Your task to perform on an android device: turn off smart reply in the gmail app Image 0: 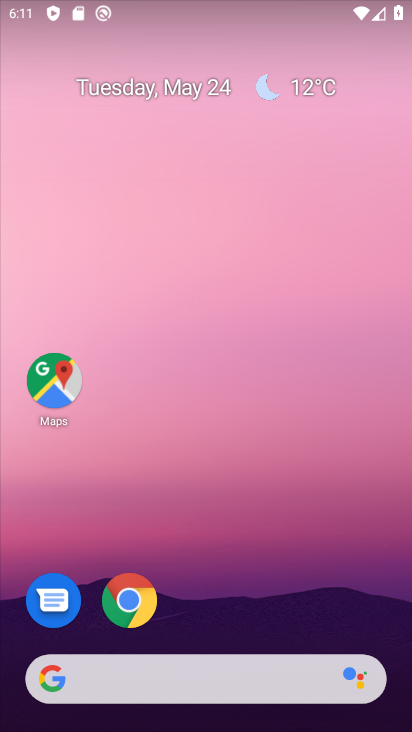
Step 0: drag from (299, 685) to (290, 161)
Your task to perform on an android device: turn off smart reply in the gmail app Image 1: 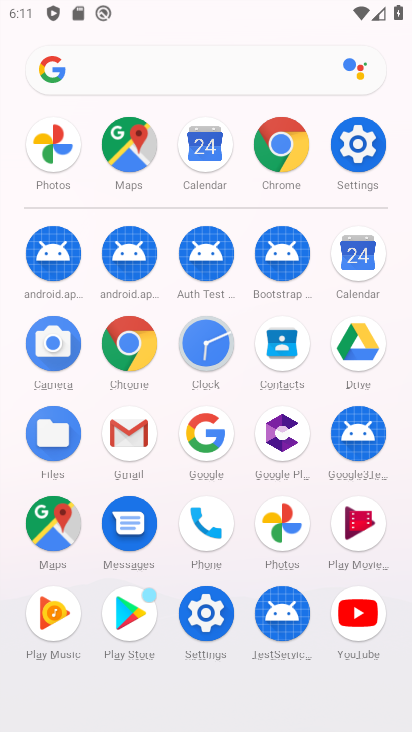
Step 1: click (105, 443)
Your task to perform on an android device: turn off smart reply in the gmail app Image 2: 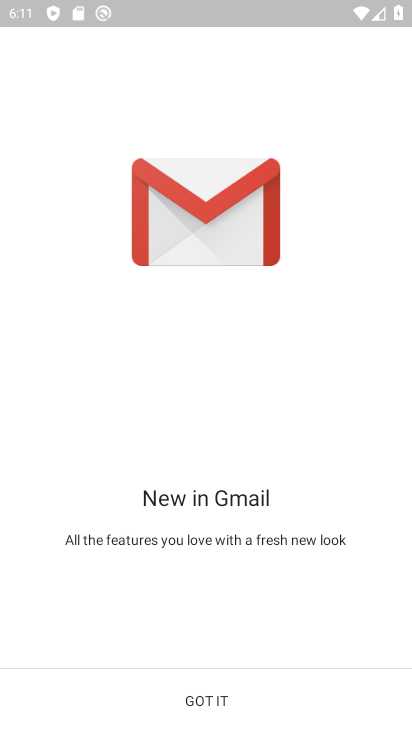
Step 2: click (249, 707)
Your task to perform on an android device: turn off smart reply in the gmail app Image 3: 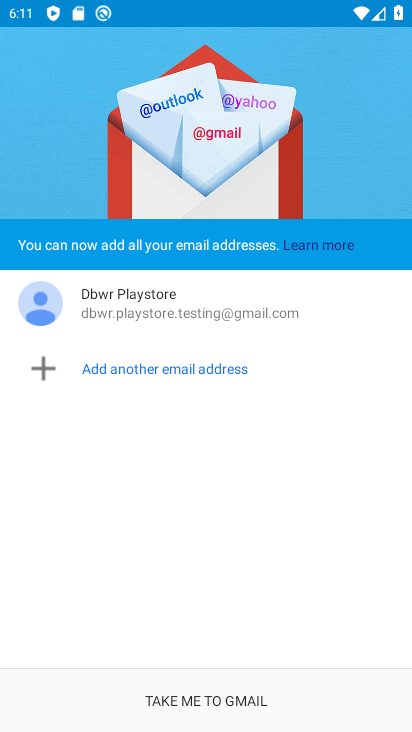
Step 3: click (249, 707)
Your task to perform on an android device: turn off smart reply in the gmail app Image 4: 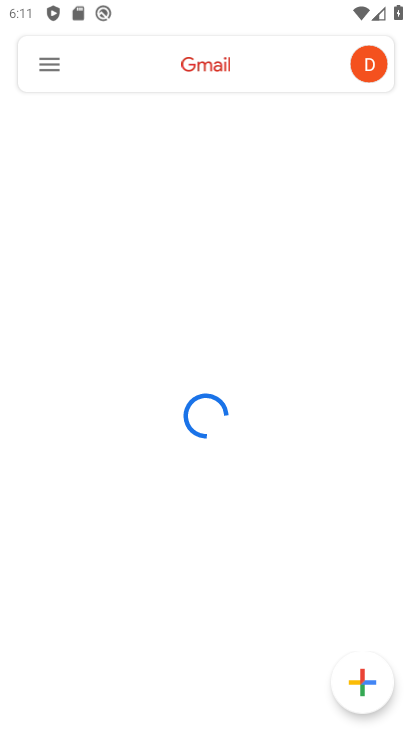
Step 4: click (51, 67)
Your task to perform on an android device: turn off smart reply in the gmail app Image 5: 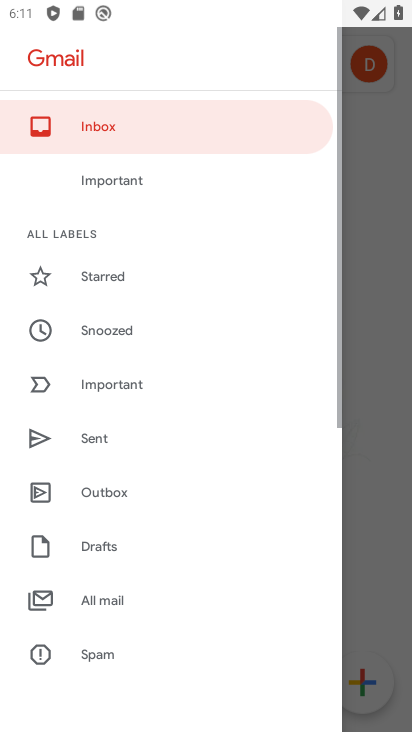
Step 5: click (113, 291)
Your task to perform on an android device: turn off smart reply in the gmail app Image 6: 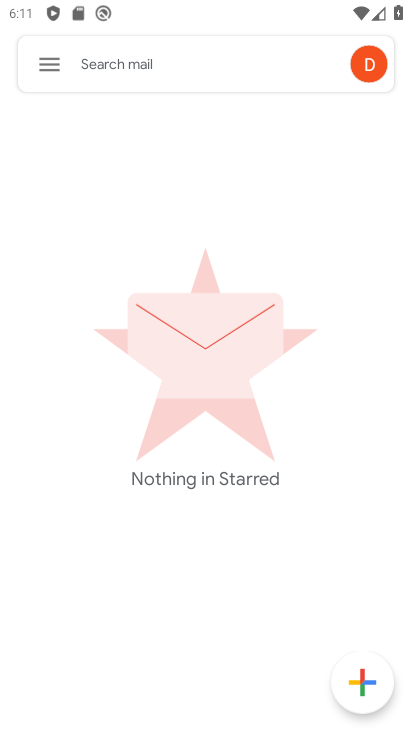
Step 6: press back button
Your task to perform on an android device: turn off smart reply in the gmail app Image 7: 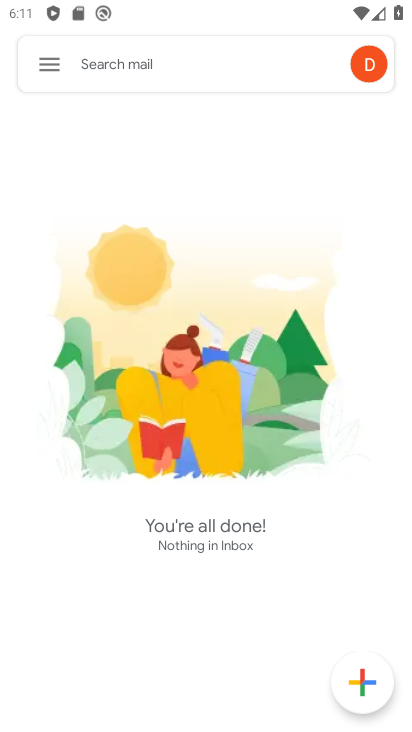
Step 7: click (54, 67)
Your task to perform on an android device: turn off smart reply in the gmail app Image 8: 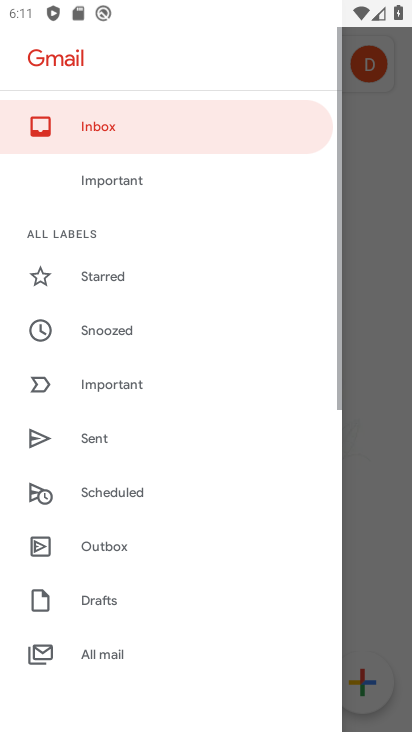
Step 8: drag from (125, 658) to (211, 192)
Your task to perform on an android device: turn off smart reply in the gmail app Image 9: 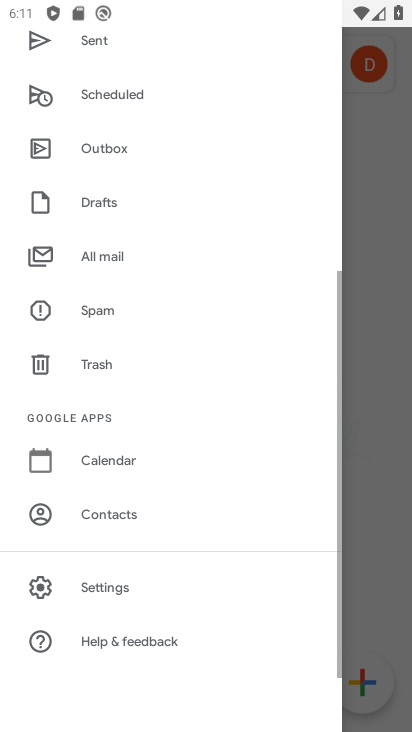
Step 9: click (104, 583)
Your task to perform on an android device: turn off smart reply in the gmail app Image 10: 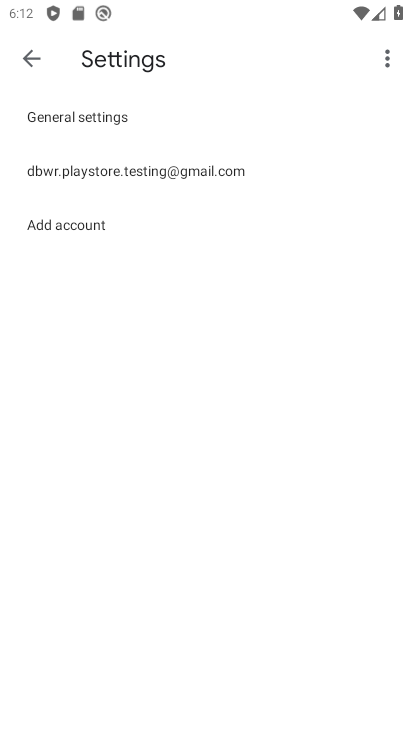
Step 10: click (230, 172)
Your task to perform on an android device: turn off smart reply in the gmail app Image 11: 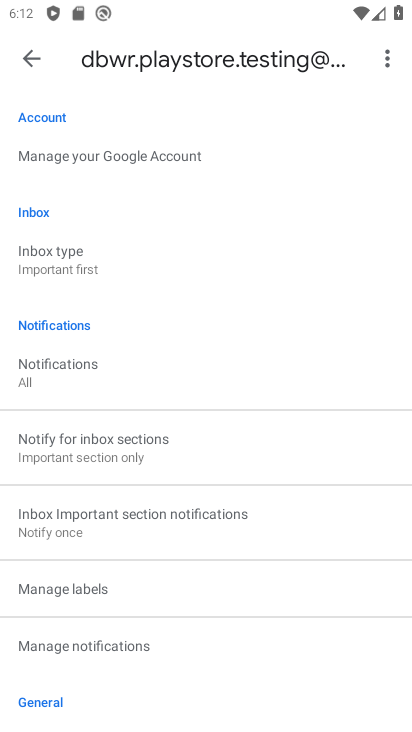
Step 11: drag from (71, 713) to (171, 55)
Your task to perform on an android device: turn off smart reply in the gmail app Image 12: 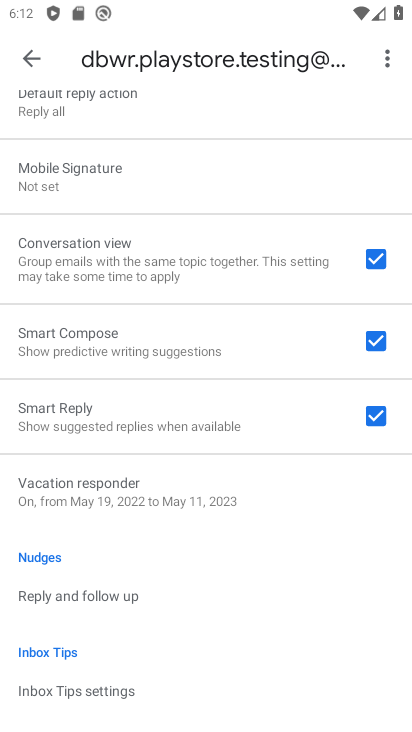
Step 12: click (387, 415)
Your task to perform on an android device: turn off smart reply in the gmail app Image 13: 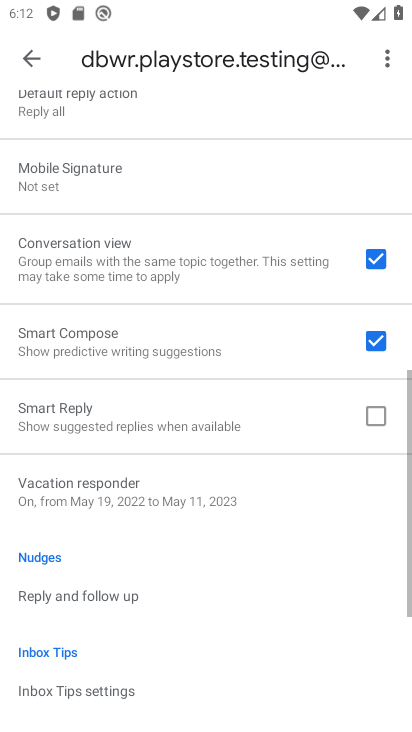
Step 13: task complete